Your task to perform on an android device: move a message to another label in the gmail app Image 0: 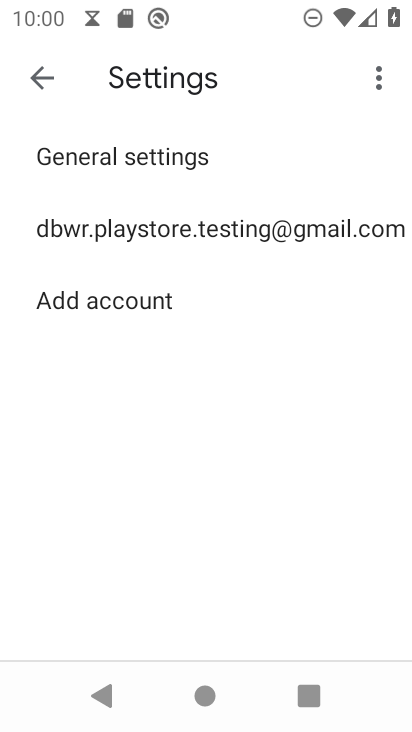
Step 0: press home button
Your task to perform on an android device: move a message to another label in the gmail app Image 1: 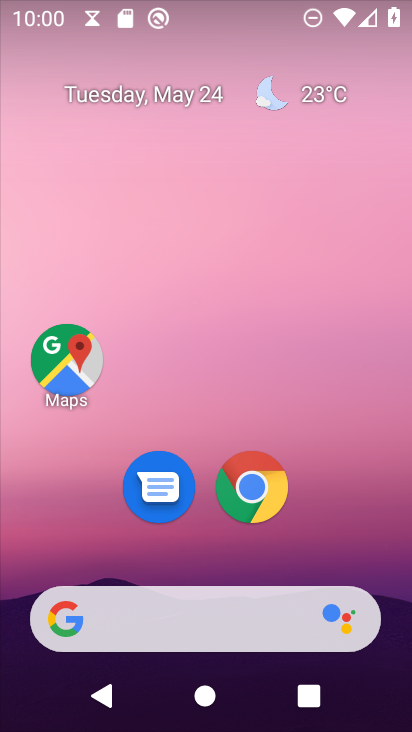
Step 1: drag from (29, 486) to (285, 67)
Your task to perform on an android device: move a message to another label in the gmail app Image 2: 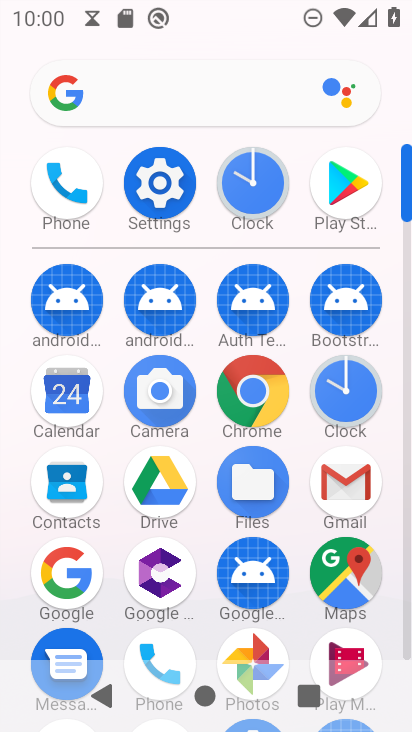
Step 2: click (355, 460)
Your task to perform on an android device: move a message to another label in the gmail app Image 3: 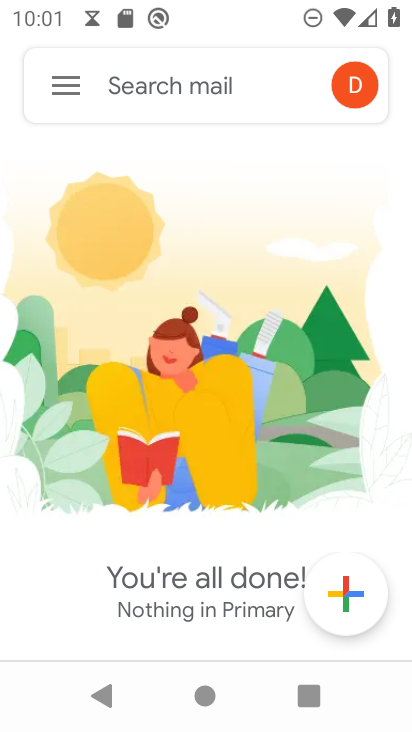
Step 3: task complete